Your task to perform on an android device: clear history in the chrome app Image 0: 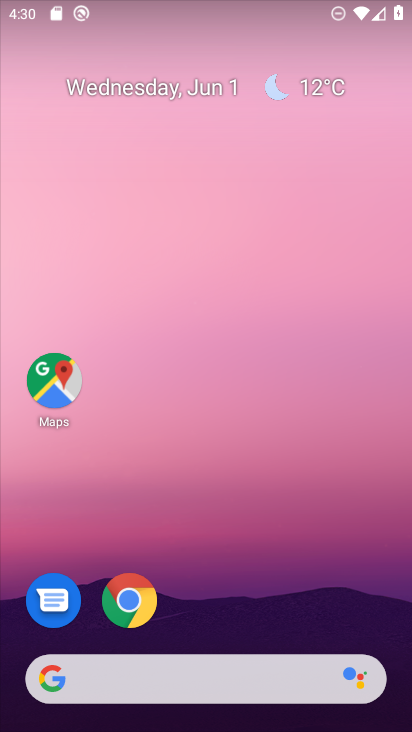
Step 0: drag from (397, 649) to (207, 113)
Your task to perform on an android device: clear history in the chrome app Image 1: 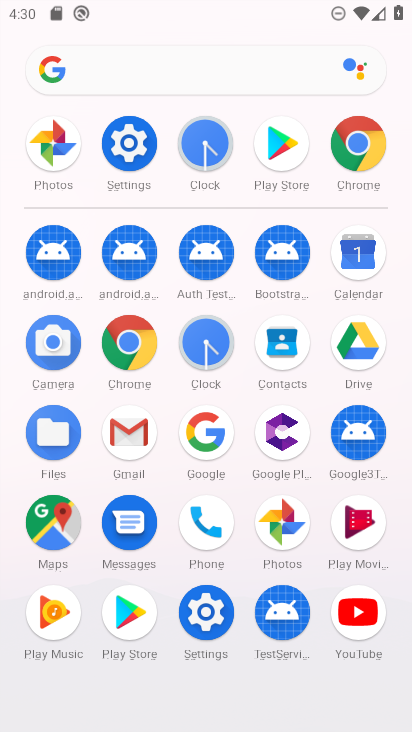
Step 1: click (129, 344)
Your task to perform on an android device: clear history in the chrome app Image 2: 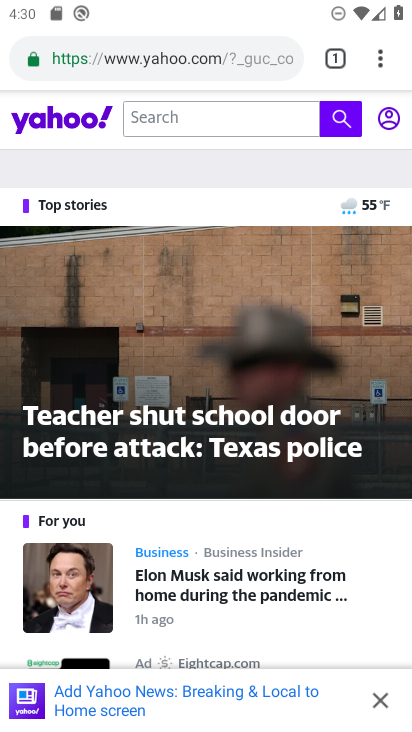
Step 2: click (381, 61)
Your task to perform on an android device: clear history in the chrome app Image 3: 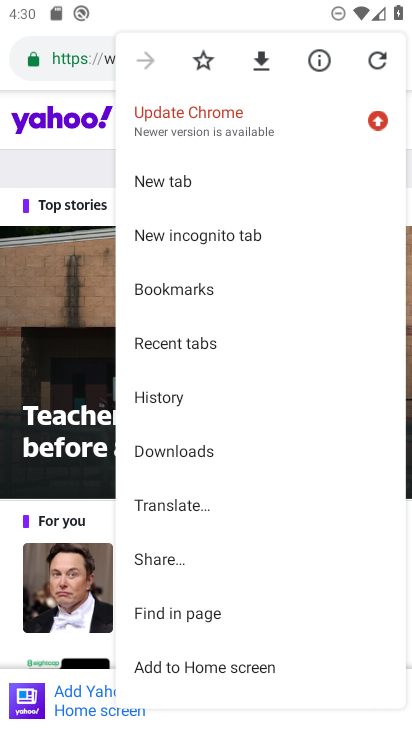
Step 3: click (176, 403)
Your task to perform on an android device: clear history in the chrome app Image 4: 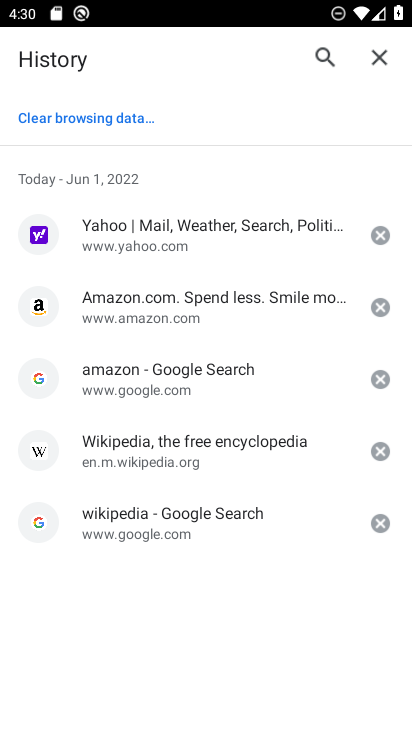
Step 4: click (94, 117)
Your task to perform on an android device: clear history in the chrome app Image 5: 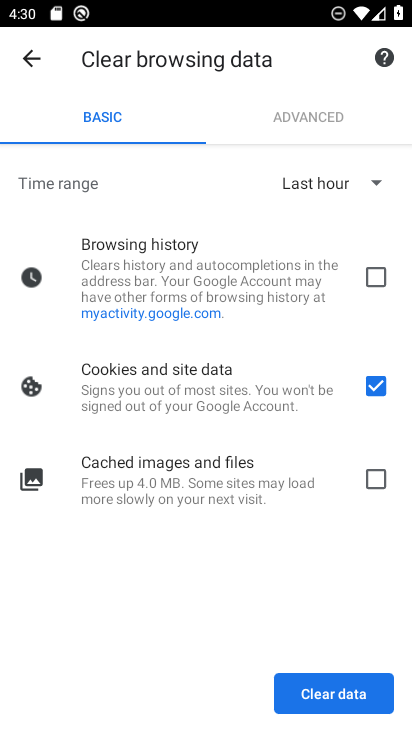
Step 5: click (375, 272)
Your task to perform on an android device: clear history in the chrome app Image 6: 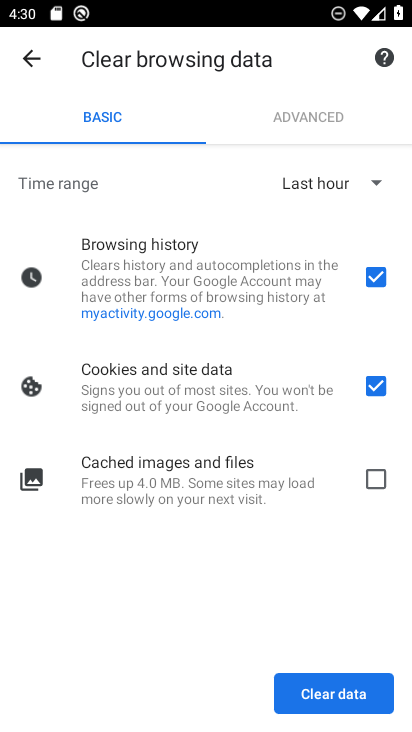
Step 6: click (384, 393)
Your task to perform on an android device: clear history in the chrome app Image 7: 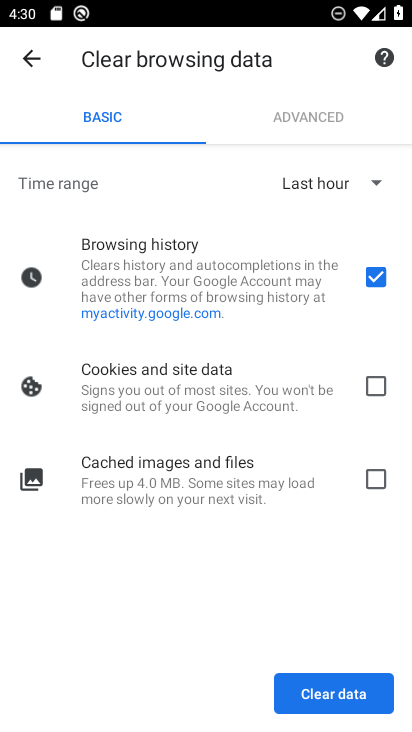
Step 7: click (340, 691)
Your task to perform on an android device: clear history in the chrome app Image 8: 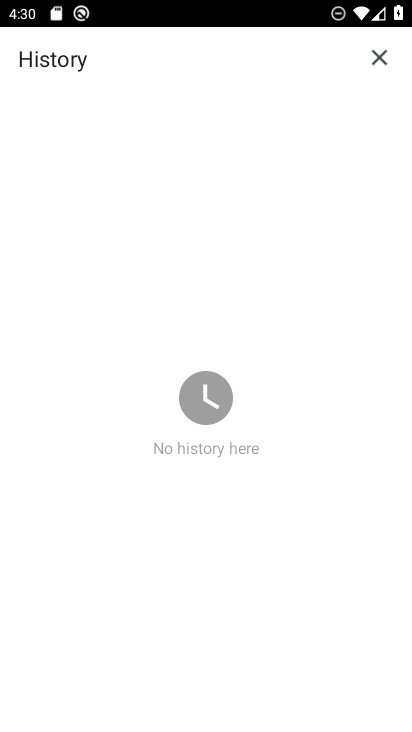
Step 8: task complete